Your task to perform on an android device: turn off location history Image 0: 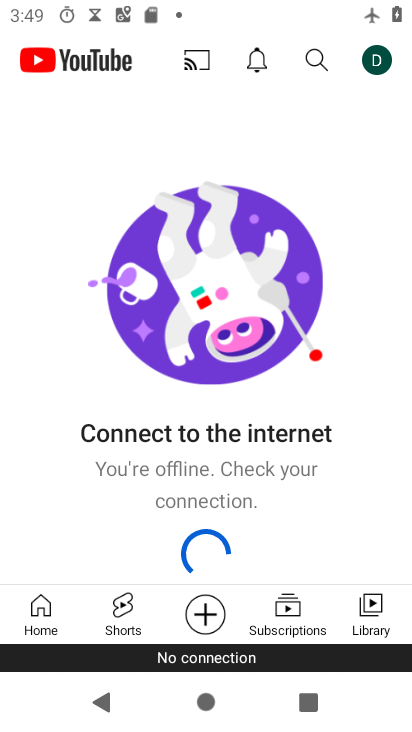
Step 0: press home button
Your task to perform on an android device: turn off location history Image 1: 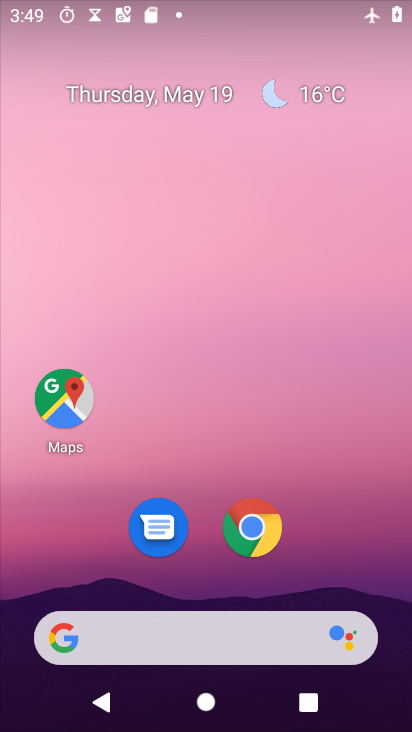
Step 1: drag from (309, 507) to (240, 1)
Your task to perform on an android device: turn off location history Image 2: 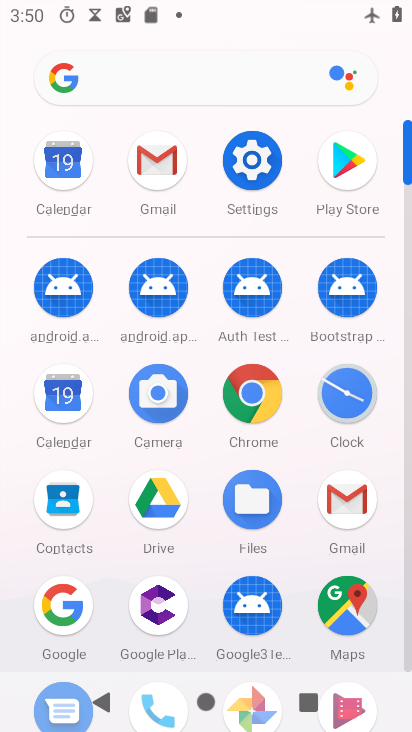
Step 2: click (262, 163)
Your task to perform on an android device: turn off location history Image 3: 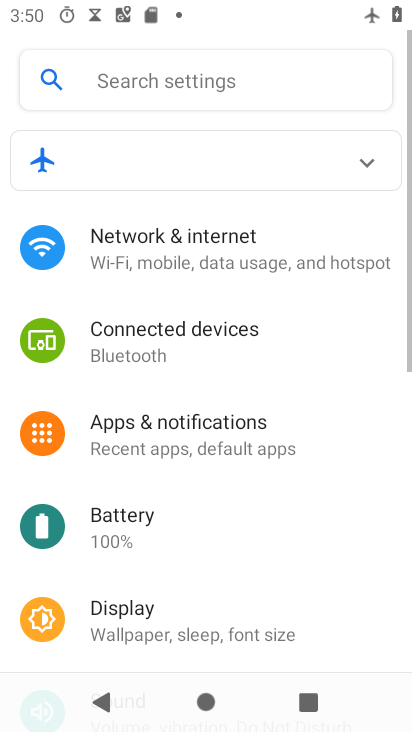
Step 3: drag from (255, 569) to (228, 127)
Your task to perform on an android device: turn off location history Image 4: 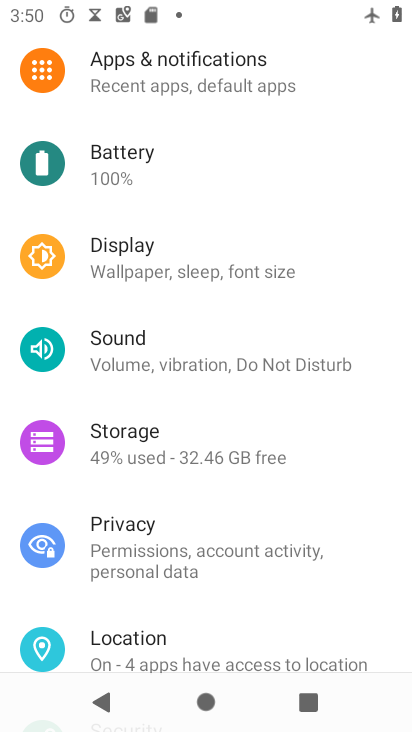
Step 4: click (227, 650)
Your task to perform on an android device: turn off location history Image 5: 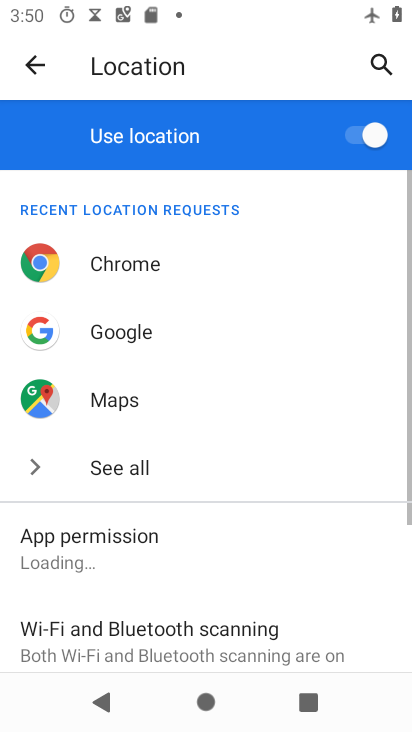
Step 5: drag from (276, 590) to (273, 146)
Your task to perform on an android device: turn off location history Image 6: 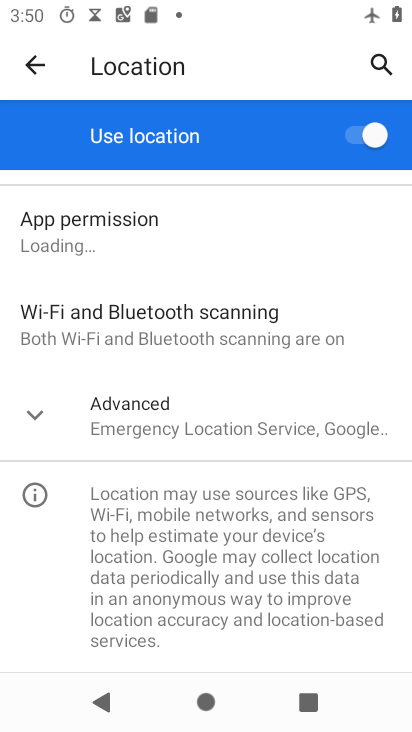
Step 6: click (218, 407)
Your task to perform on an android device: turn off location history Image 7: 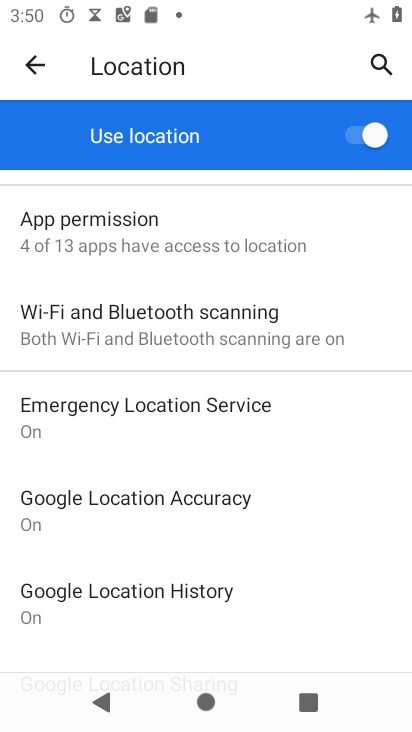
Step 7: click (224, 583)
Your task to perform on an android device: turn off location history Image 8: 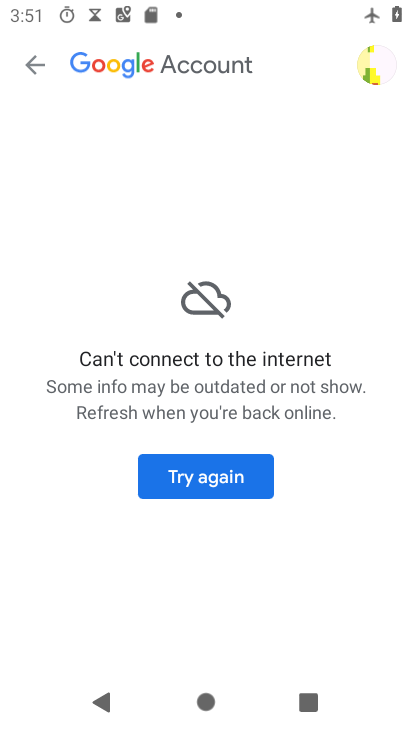
Step 8: task complete